Your task to perform on an android device: turn on notifications settings in the gmail app Image 0: 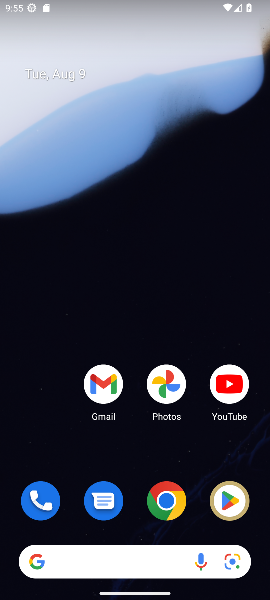
Step 0: click (103, 401)
Your task to perform on an android device: turn on notifications settings in the gmail app Image 1: 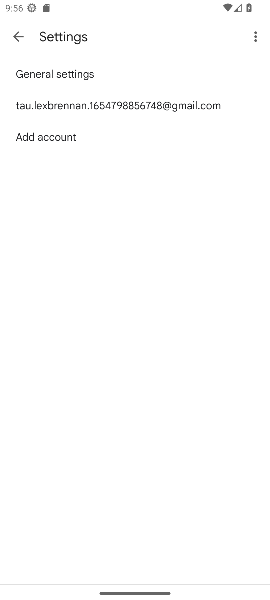
Step 1: click (159, 107)
Your task to perform on an android device: turn on notifications settings in the gmail app Image 2: 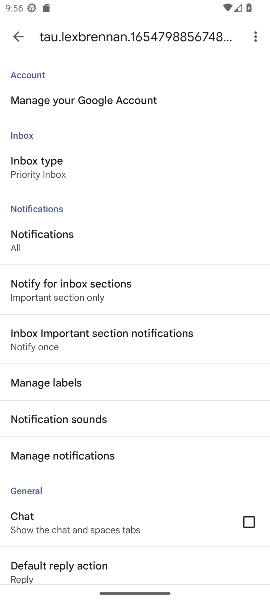
Step 2: click (83, 453)
Your task to perform on an android device: turn on notifications settings in the gmail app Image 3: 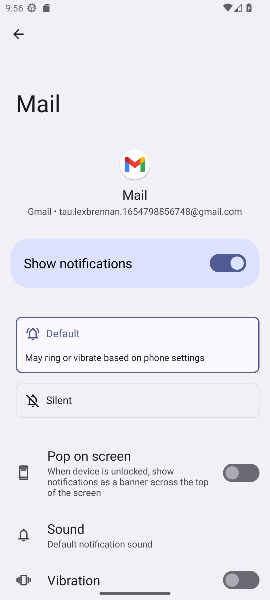
Step 3: task complete